Your task to perform on an android device: turn vacation reply on in the gmail app Image 0: 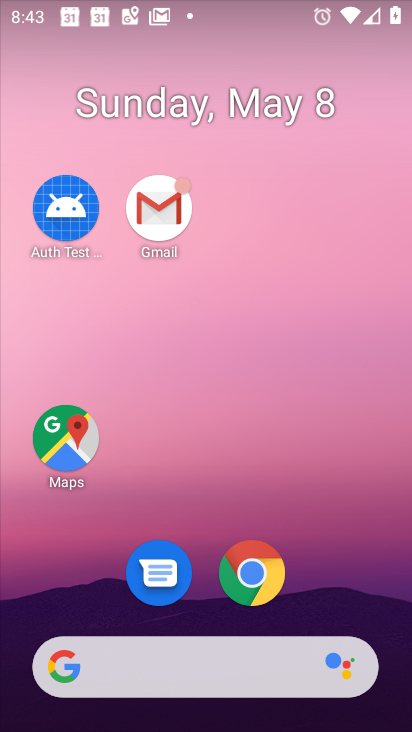
Step 0: drag from (333, 596) to (244, 220)
Your task to perform on an android device: turn vacation reply on in the gmail app Image 1: 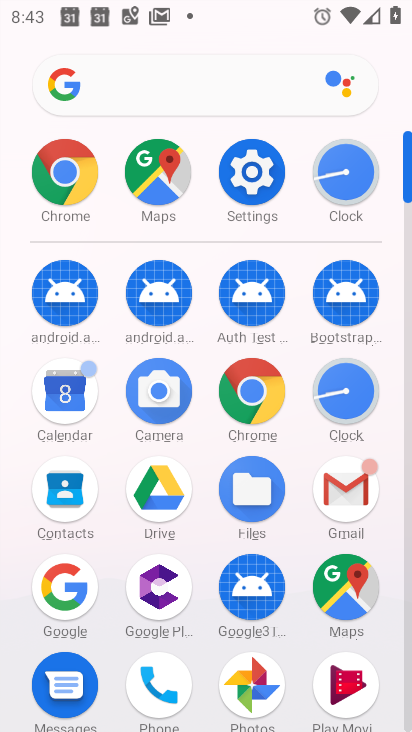
Step 1: click (346, 492)
Your task to perform on an android device: turn vacation reply on in the gmail app Image 2: 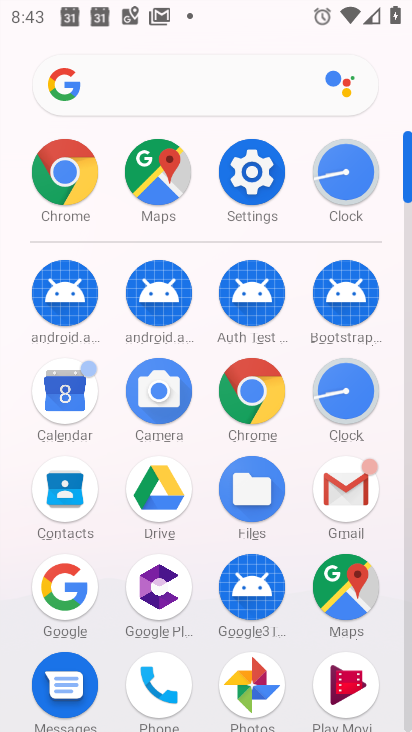
Step 2: click (346, 492)
Your task to perform on an android device: turn vacation reply on in the gmail app Image 3: 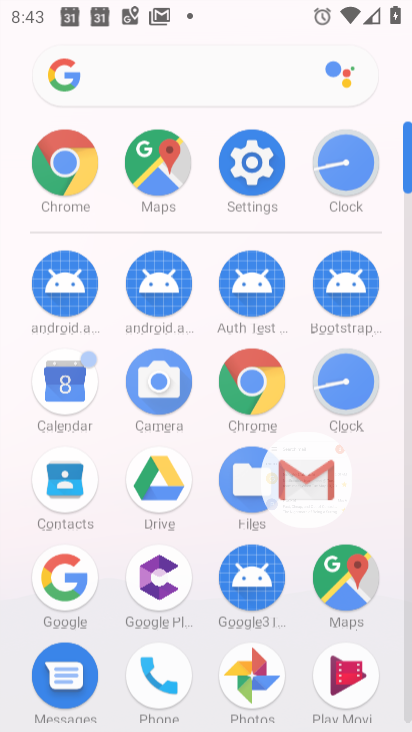
Step 3: click (346, 492)
Your task to perform on an android device: turn vacation reply on in the gmail app Image 4: 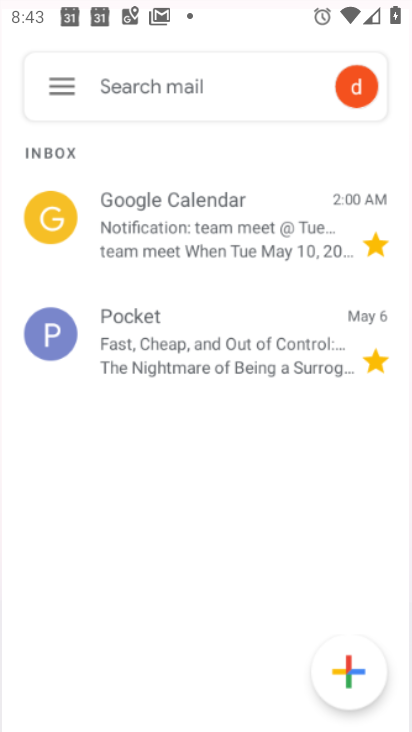
Step 4: click (346, 492)
Your task to perform on an android device: turn vacation reply on in the gmail app Image 5: 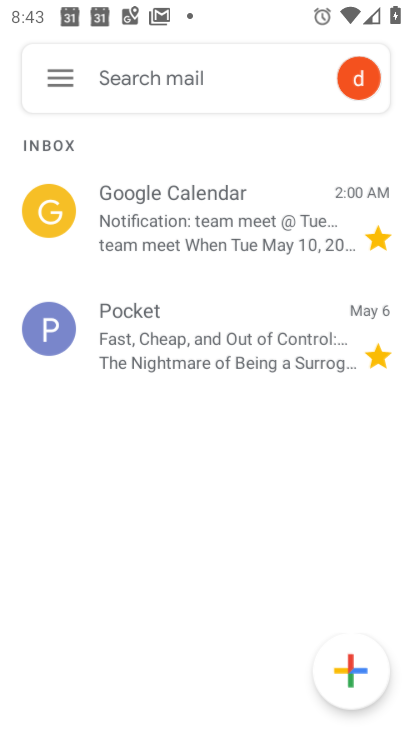
Step 5: click (346, 492)
Your task to perform on an android device: turn vacation reply on in the gmail app Image 6: 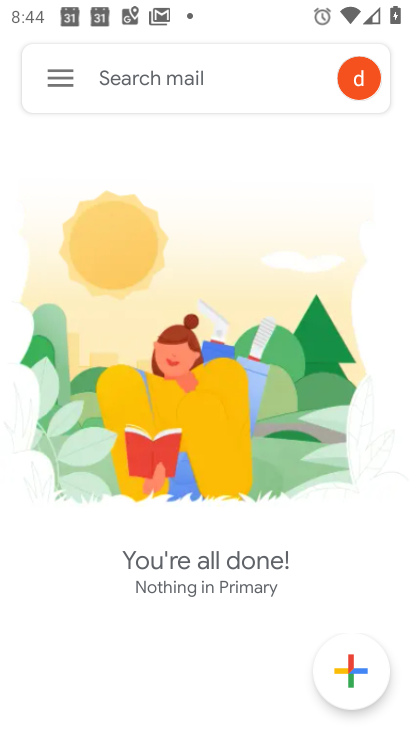
Step 6: click (56, 82)
Your task to perform on an android device: turn vacation reply on in the gmail app Image 7: 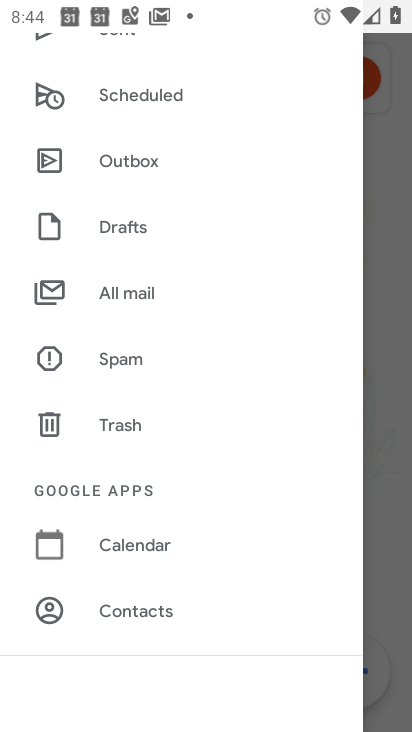
Step 7: drag from (169, 580) to (124, 112)
Your task to perform on an android device: turn vacation reply on in the gmail app Image 8: 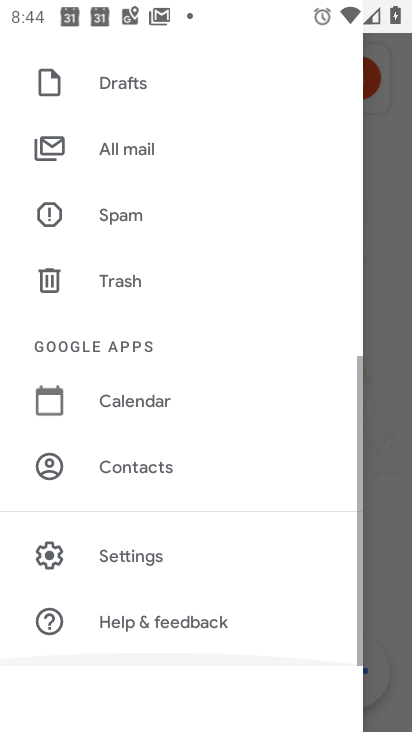
Step 8: drag from (184, 466) to (158, 51)
Your task to perform on an android device: turn vacation reply on in the gmail app Image 9: 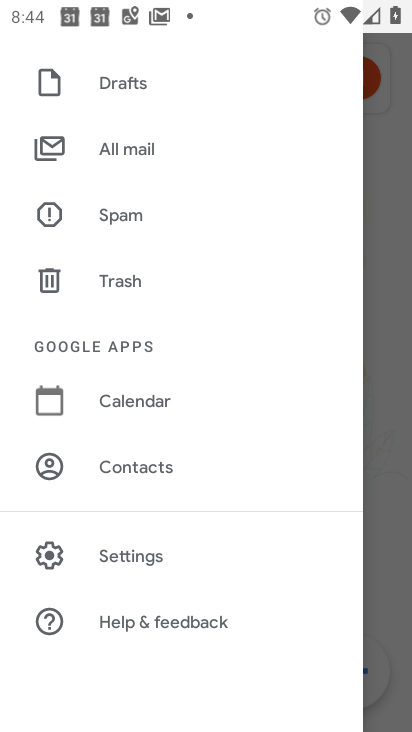
Step 9: click (130, 554)
Your task to perform on an android device: turn vacation reply on in the gmail app Image 10: 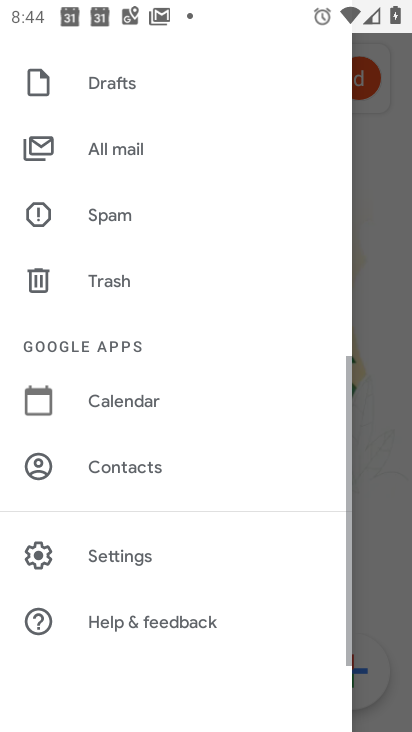
Step 10: click (129, 553)
Your task to perform on an android device: turn vacation reply on in the gmail app Image 11: 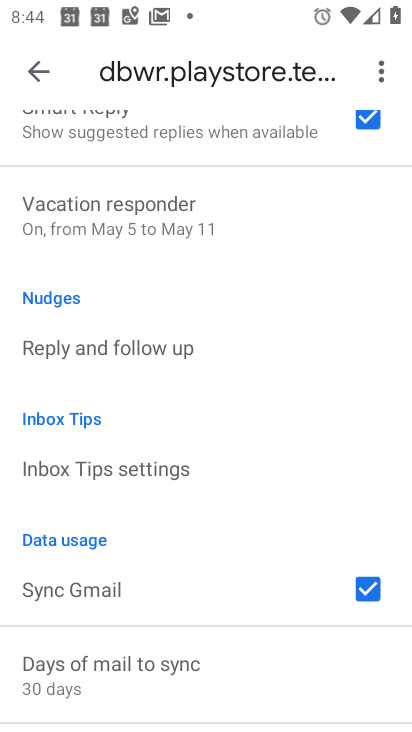
Step 11: click (147, 225)
Your task to perform on an android device: turn vacation reply on in the gmail app Image 12: 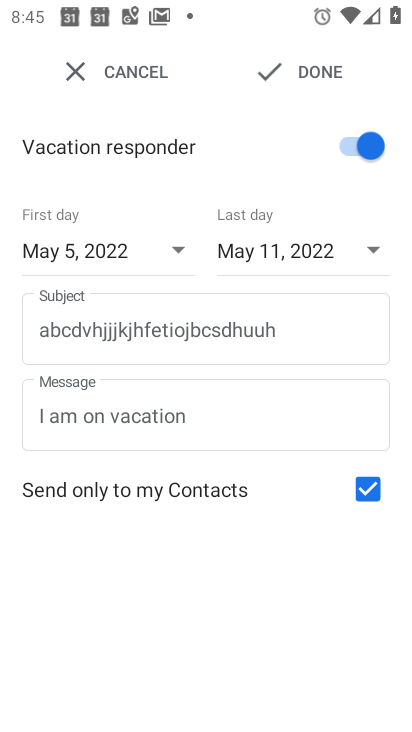
Step 12: task complete